Your task to perform on an android device: Open battery settings Image 0: 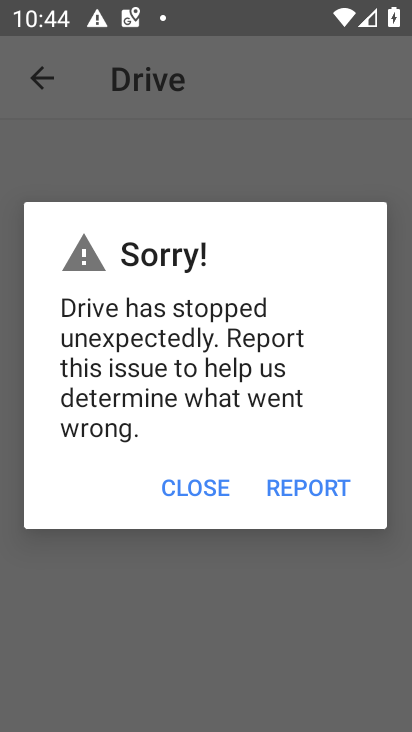
Step 0: press home button
Your task to perform on an android device: Open battery settings Image 1: 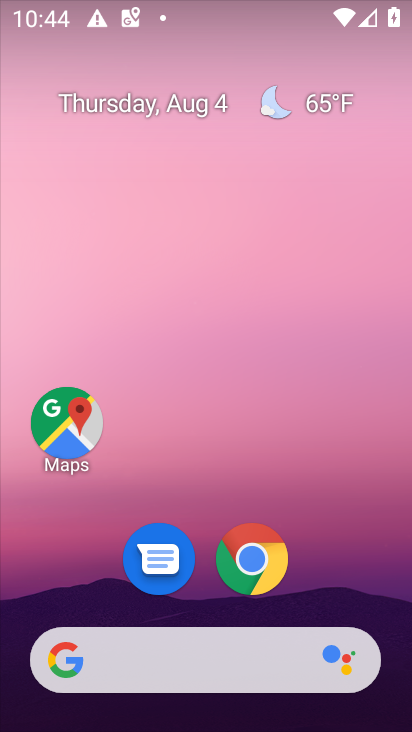
Step 1: drag from (221, 646) to (210, 138)
Your task to perform on an android device: Open battery settings Image 2: 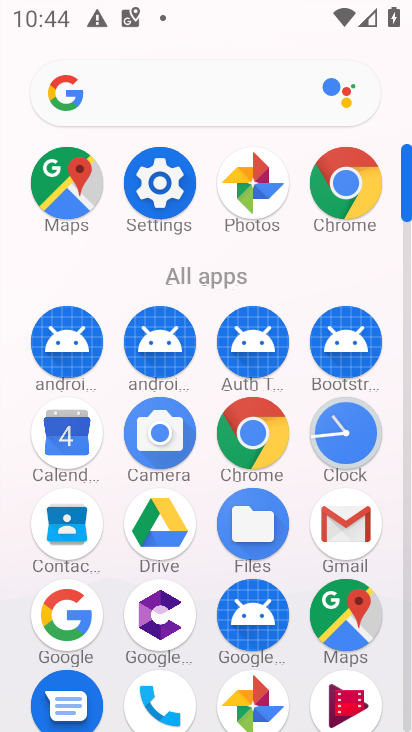
Step 2: click (175, 197)
Your task to perform on an android device: Open battery settings Image 3: 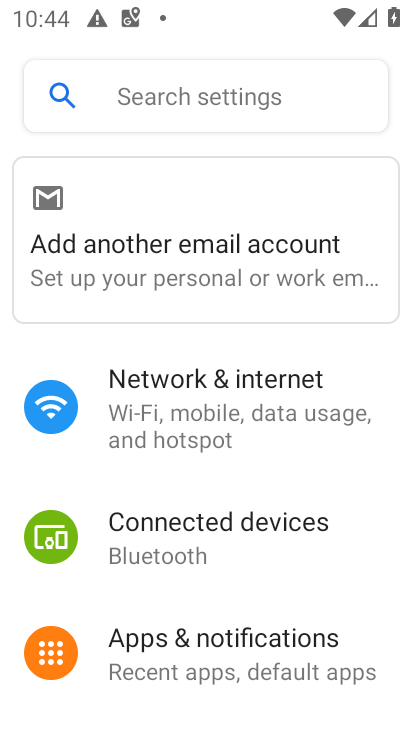
Step 3: drag from (222, 652) to (185, 134)
Your task to perform on an android device: Open battery settings Image 4: 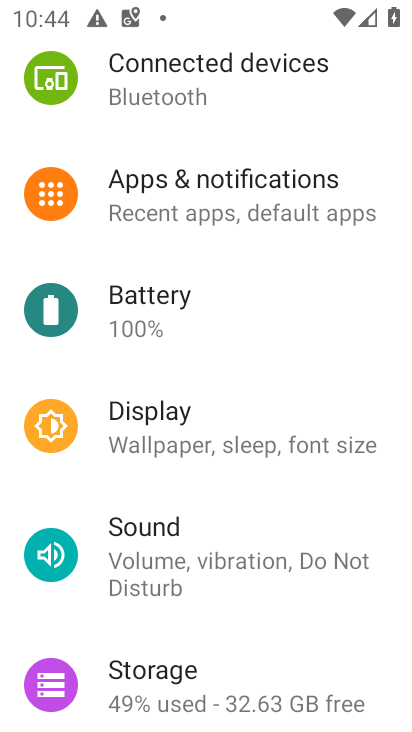
Step 4: click (132, 287)
Your task to perform on an android device: Open battery settings Image 5: 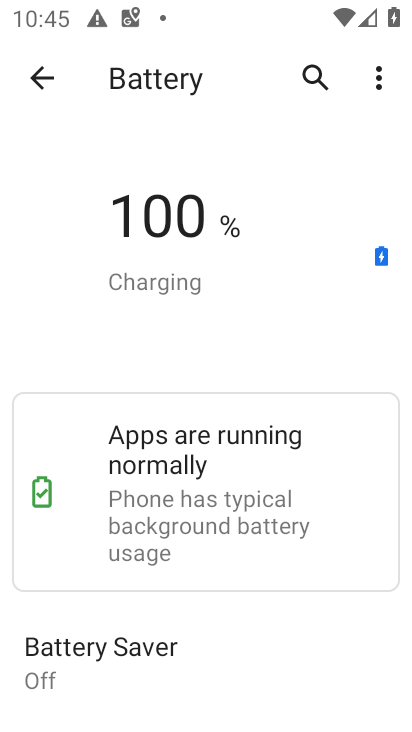
Step 5: task complete